Your task to perform on an android device: Open the calendar app, open the side menu, and click the "Day" option Image 0: 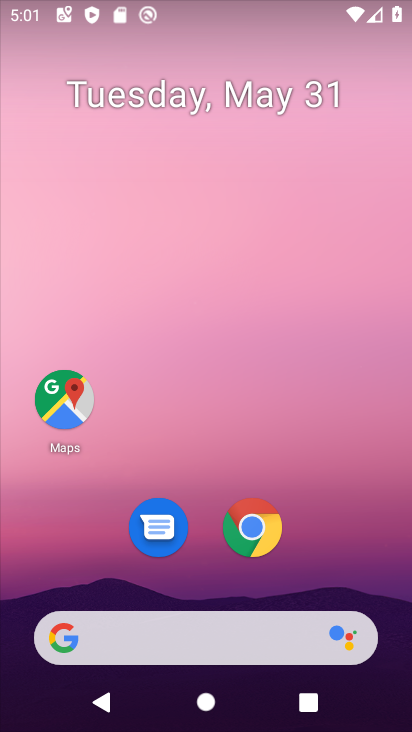
Step 0: drag from (284, 558) to (330, 75)
Your task to perform on an android device: Open the calendar app, open the side menu, and click the "Day" option Image 1: 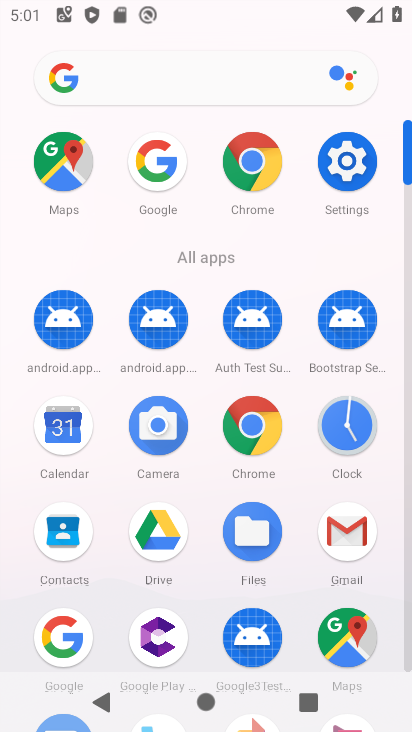
Step 1: click (48, 415)
Your task to perform on an android device: Open the calendar app, open the side menu, and click the "Day" option Image 2: 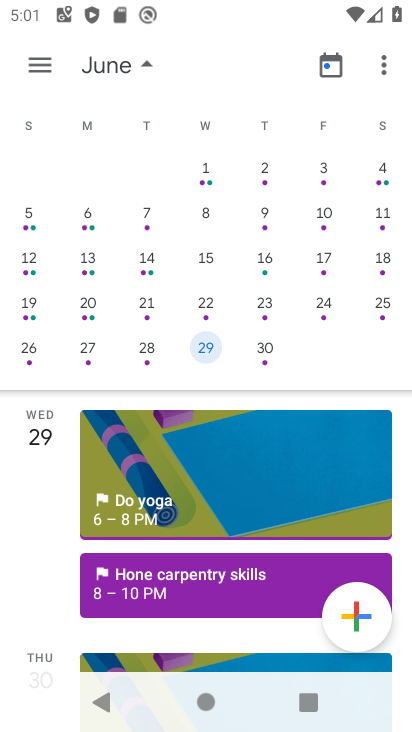
Step 2: click (38, 52)
Your task to perform on an android device: Open the calendar app, open the side menu, and click the "Day" option Image 3: 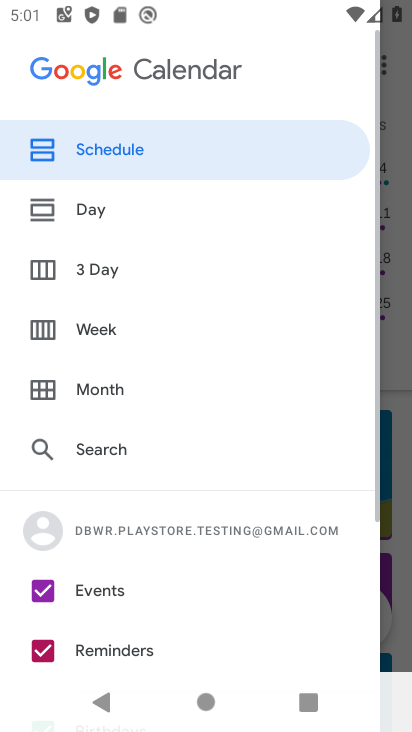
Step 3: click (65, 217)
Your task to perform on an android device: Open the calendar app, open the side menu, and click the "Day" option Image 4: 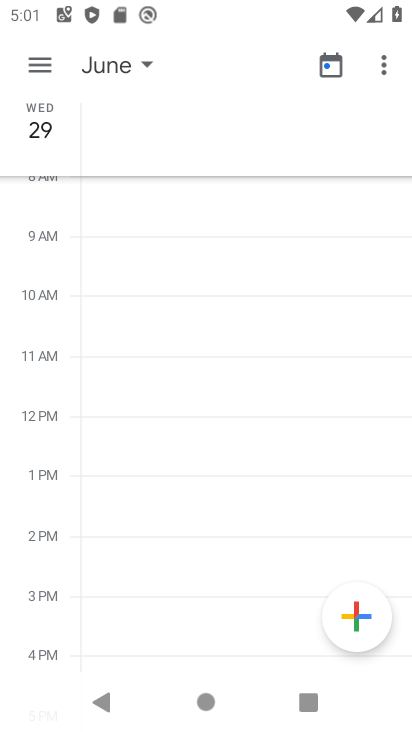
Step 4: task complete